Your task to perform on an android device: Open network settings Image 0: 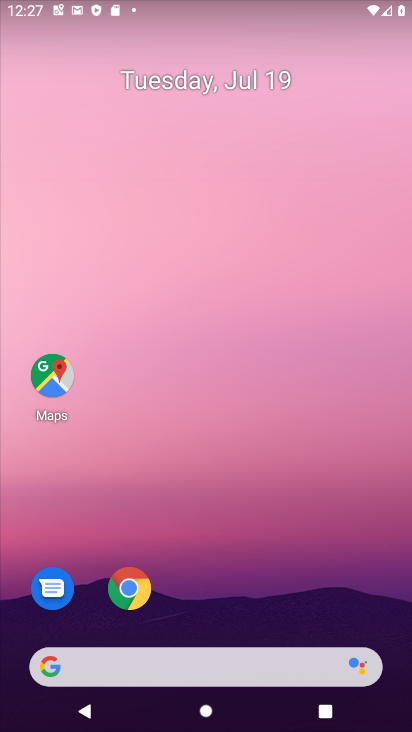
Step 0: drag from (343, 602) to (167, 26)
Your task to perform on an android device: Open network settings Image 1: 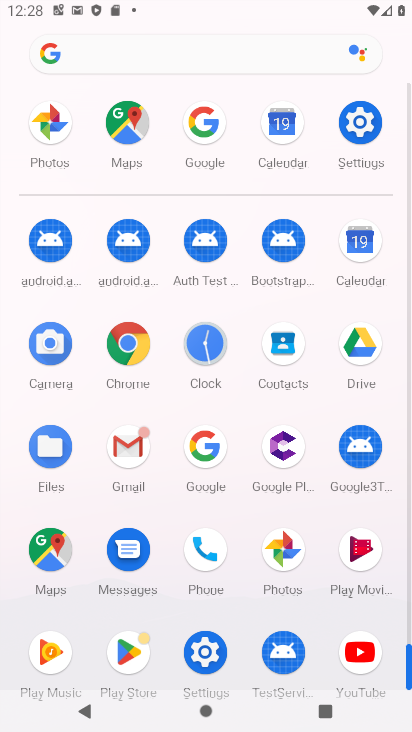
Step 1: click (186, 657)
Your task to perform on an android device: Open network settings Image 2: 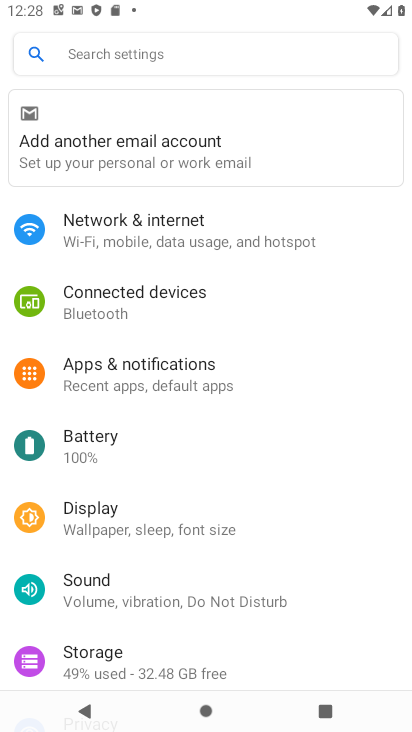
Step 2: click (161, 228)
Your task to perform on an android device: Open network settings Image 3: 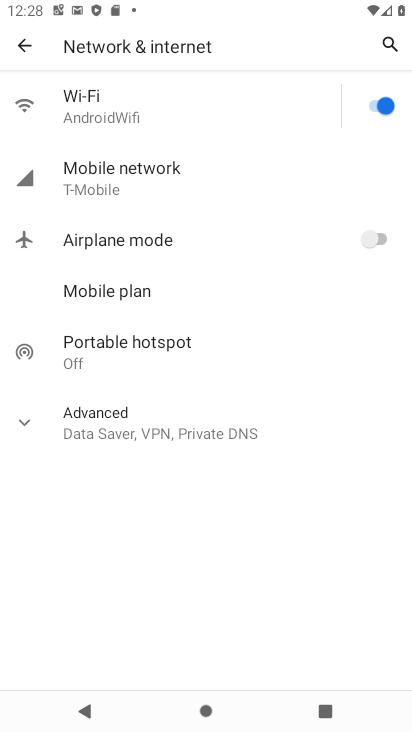
Step 3: task complete